Your task to perform on an android device: Go to calendar. Show me events next week Image 0: 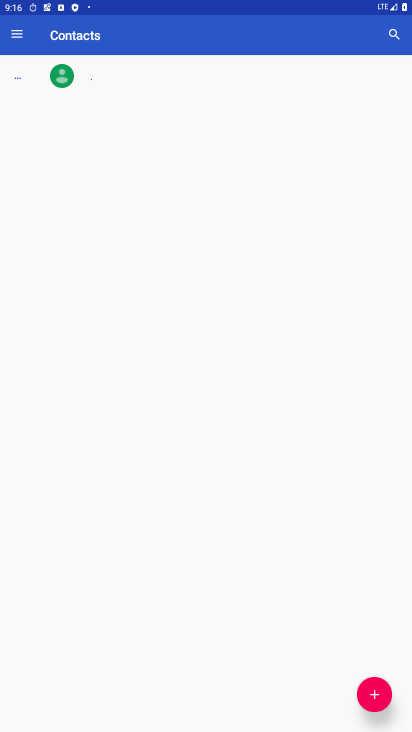
Step 0: press home button
Your task to perform on an android device: Go to calendar. Show me events next week Image 1: 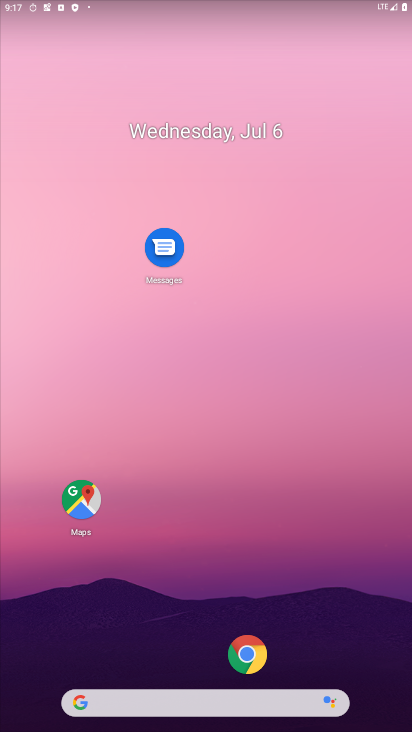
Step 1: click (178, 140)
Your task to perform on an android device: Go to calendar. Show me events next week Image 2: 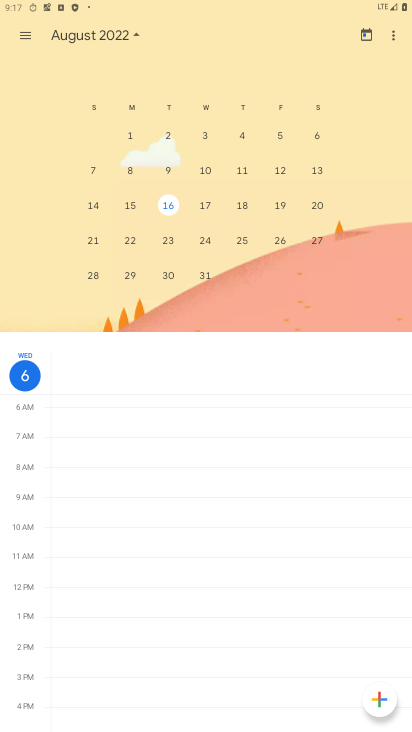
Step 2: click (24, 43)
Your task to perform on an android device: Go to calendar. Show me events next week Image 3: 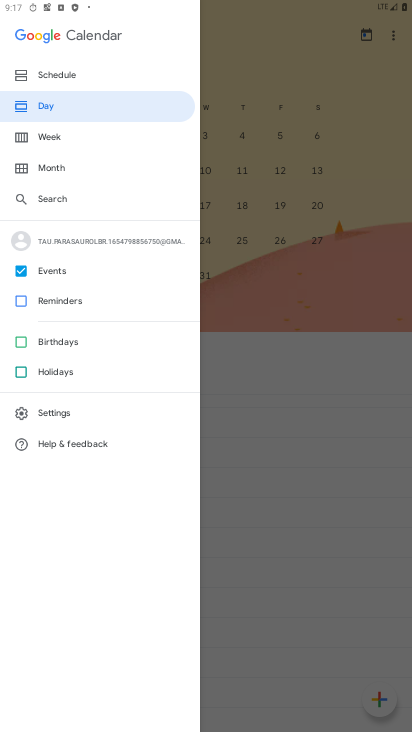
Step 3: click (53, 135)
Your task to perform on an android device: Go to calendar. Show me events next week Image 4: 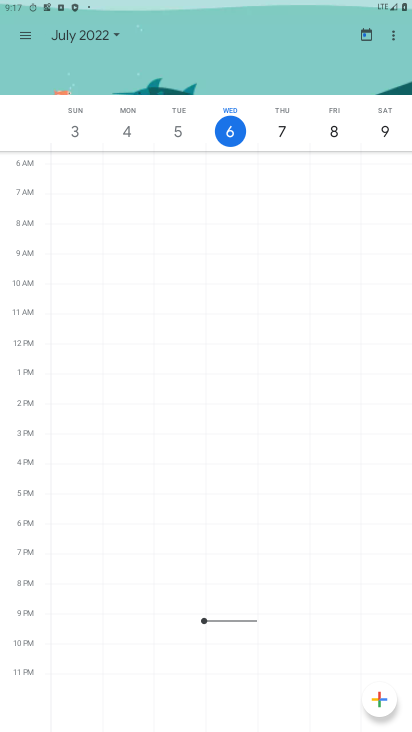
Step 4: click (149, 449)
Your task to perform on an android device: Go to calendar. Show me events next week Image 5: 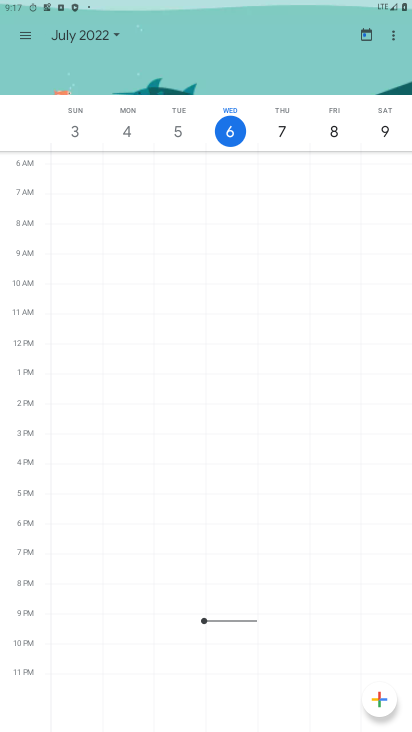
Step 5: click (74, 31)
Your task to perform on an android device: Go to calendar. Show me events next week Image 6: 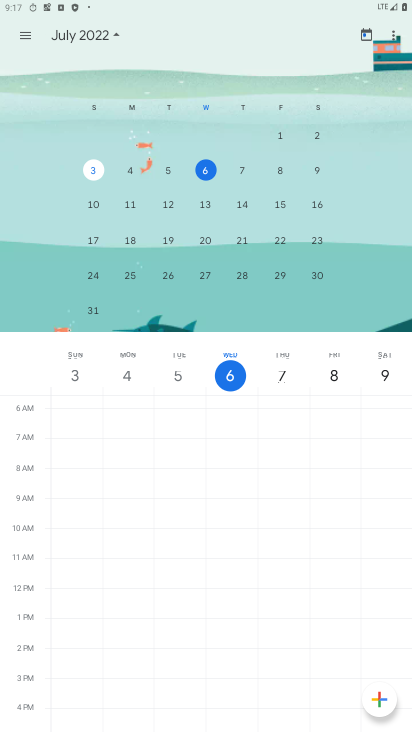
Step 6: click (210, 203)
Your task to perform on an android device: Go to calendar. Show me events next week Image 7: 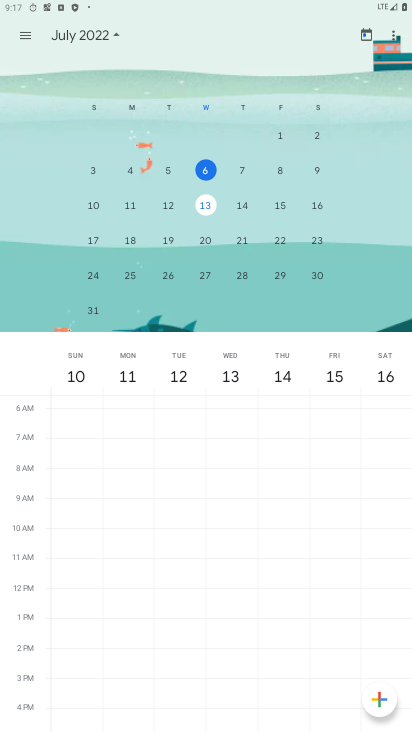
Step 7: task complete